Your task to perform on an android device: uninstall "Messenger Lite" Image 0: 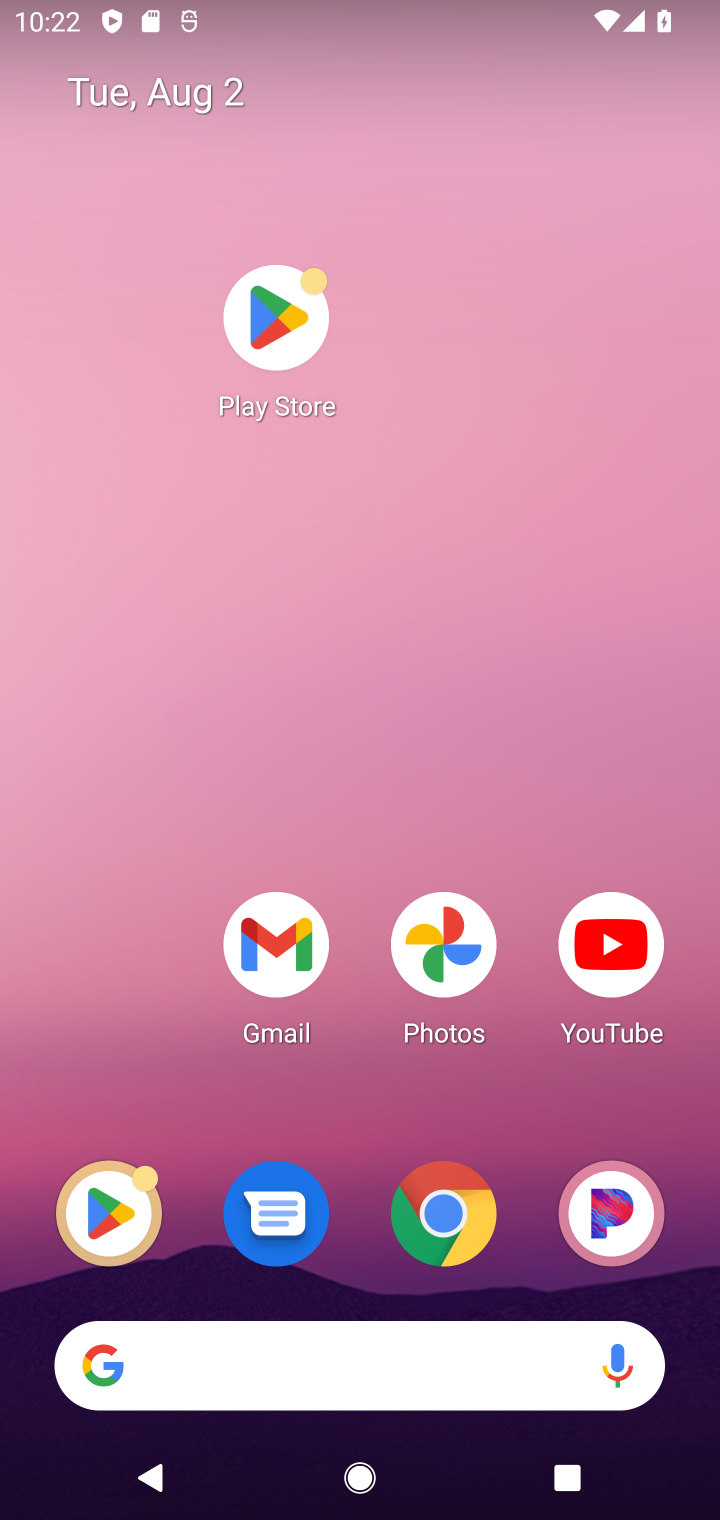
Step 0: click (303, 300)
Your task to perform on an android device: uninstall "Messenger Lite" Image 1: 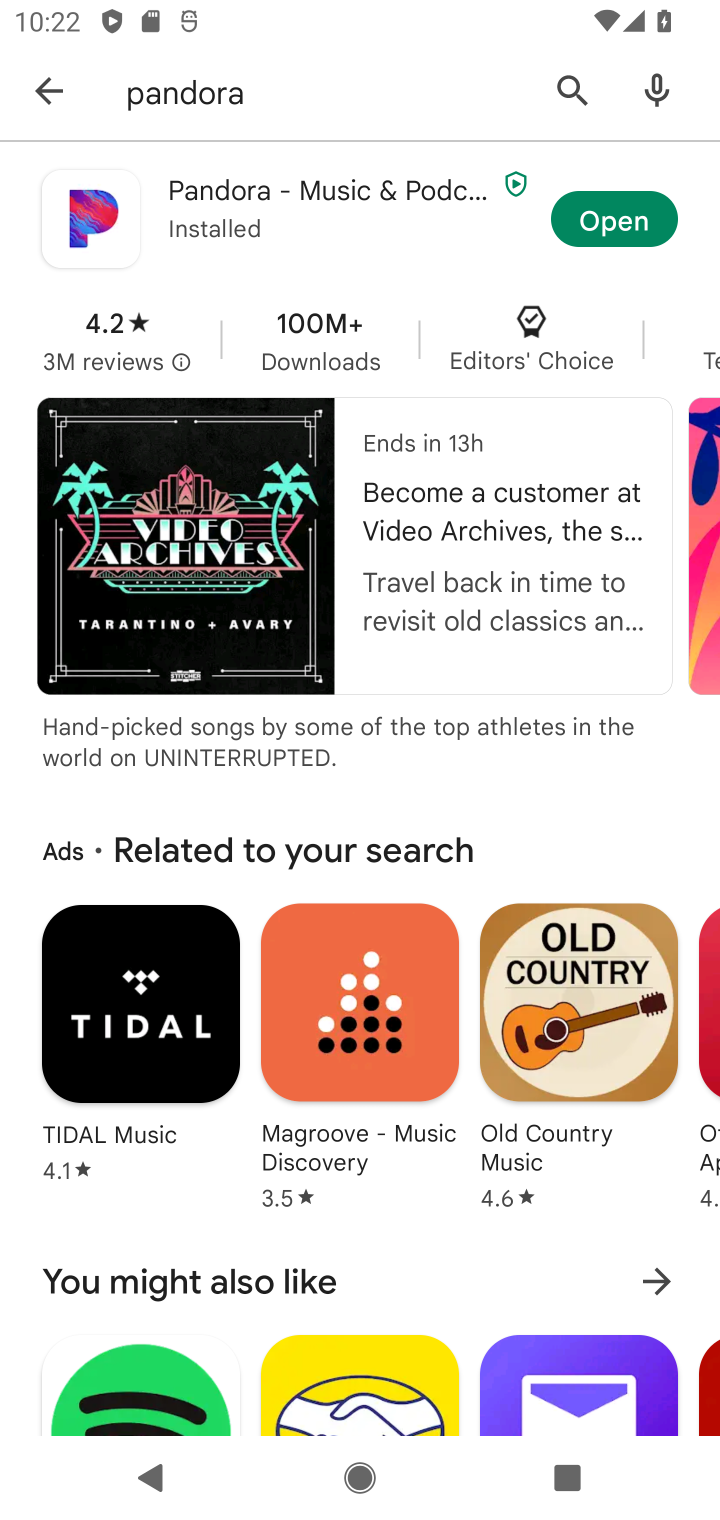
Step 1: click (567, 86)
Your task to perform on an android device: uninstall "Messenger Lite" Image 2: 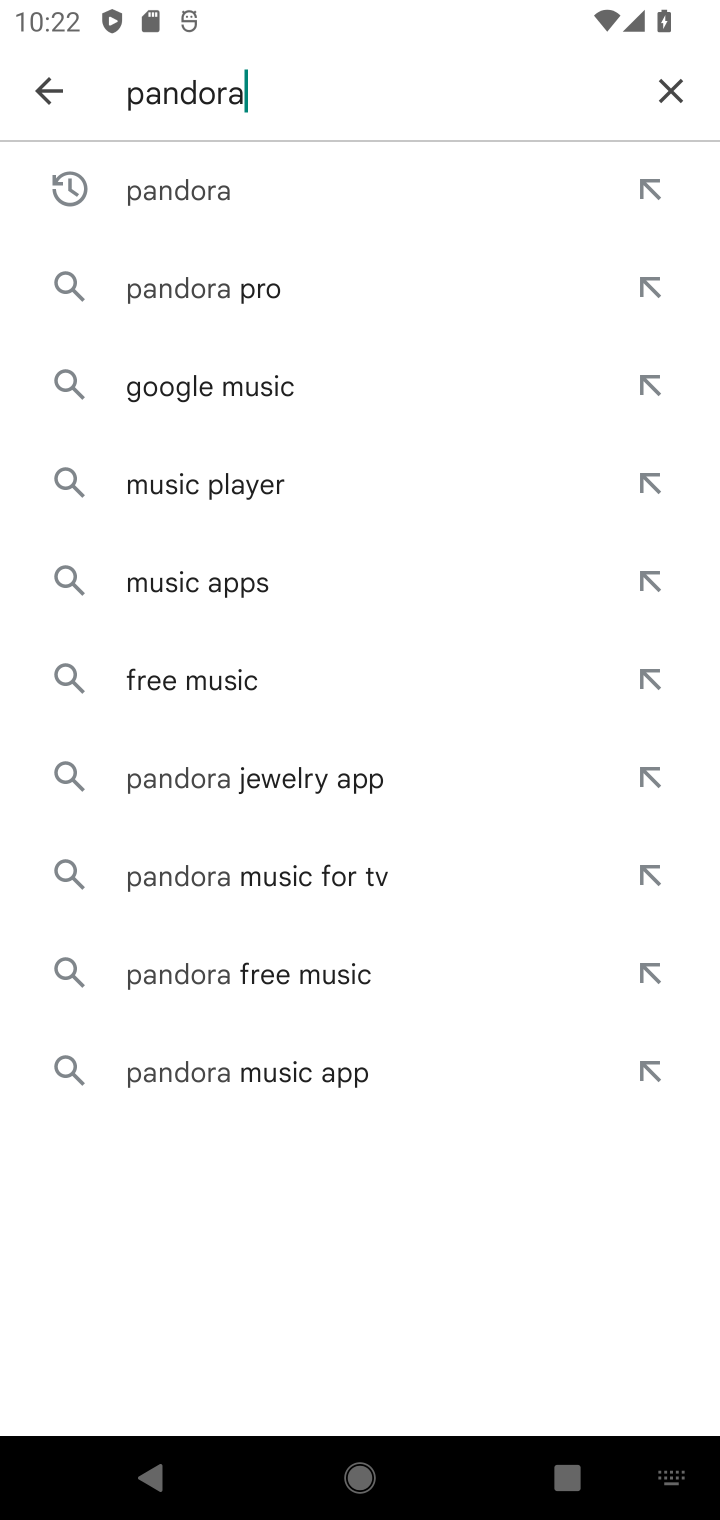
Step 2: click (666, 72)
Your task to perform on an android device: uninstall "Messenger Lite" Image 3: 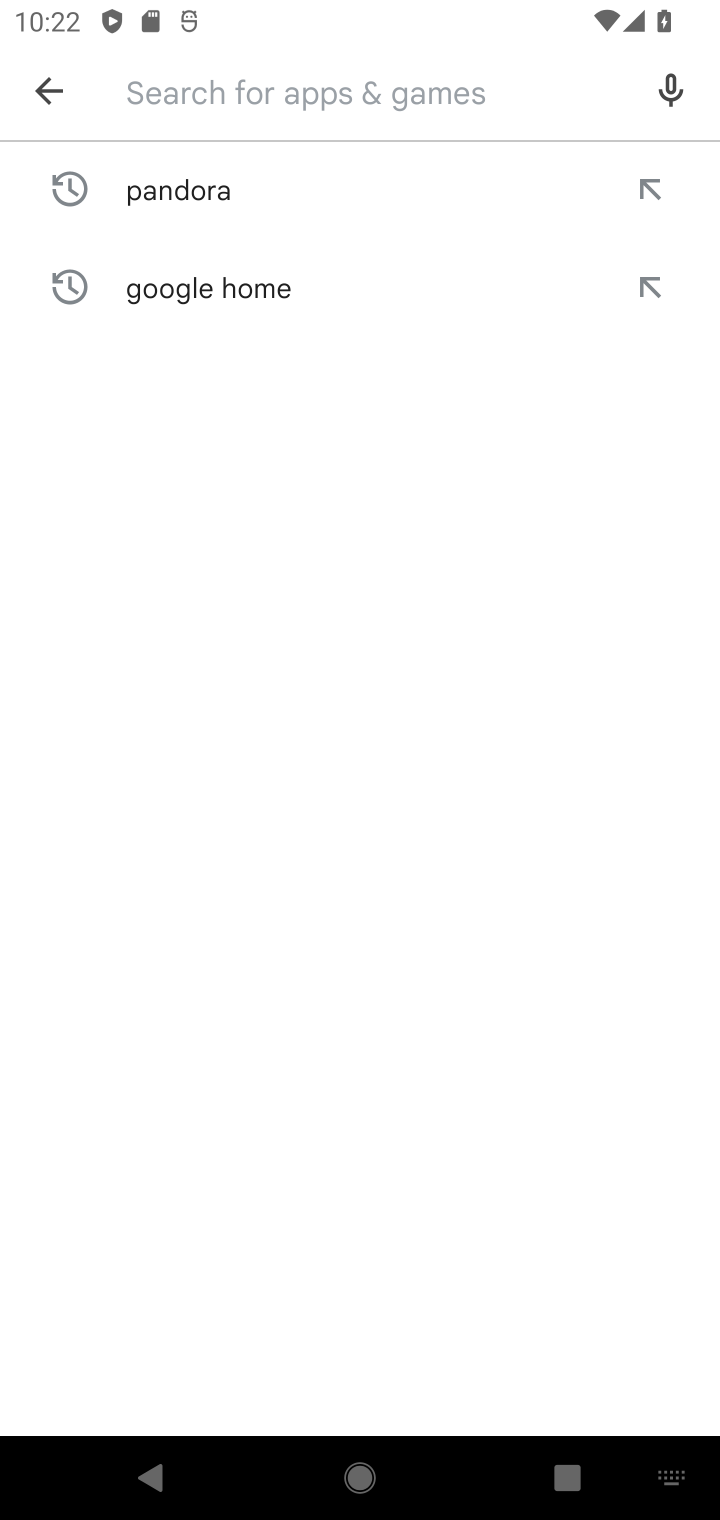
Step 3: type "messenger lite"
Your task to perform on an android device: uninstall "Messenger Lite" Image 4: 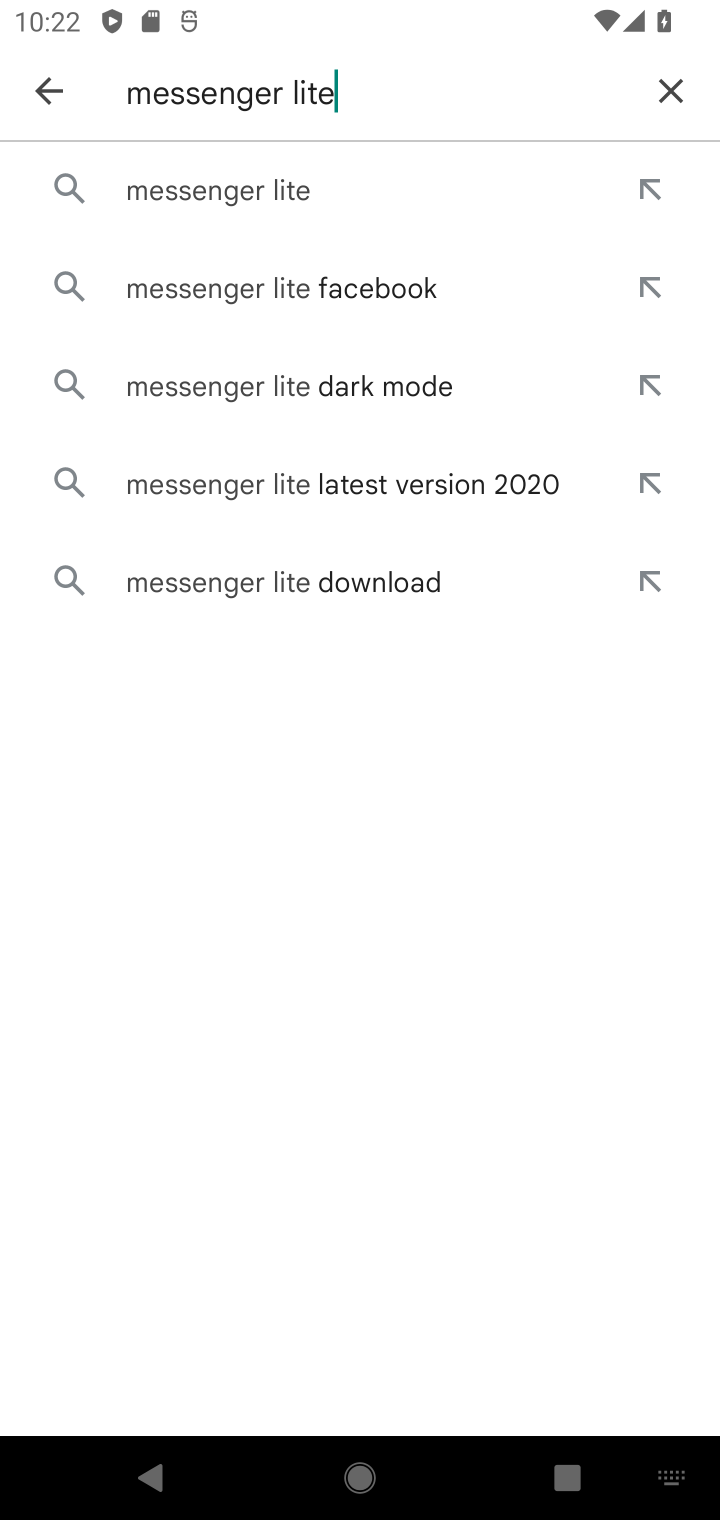
Step 4: click (415, 164)
Your task to perform on an android device: uninstall "Messenger Lite" Image 5: 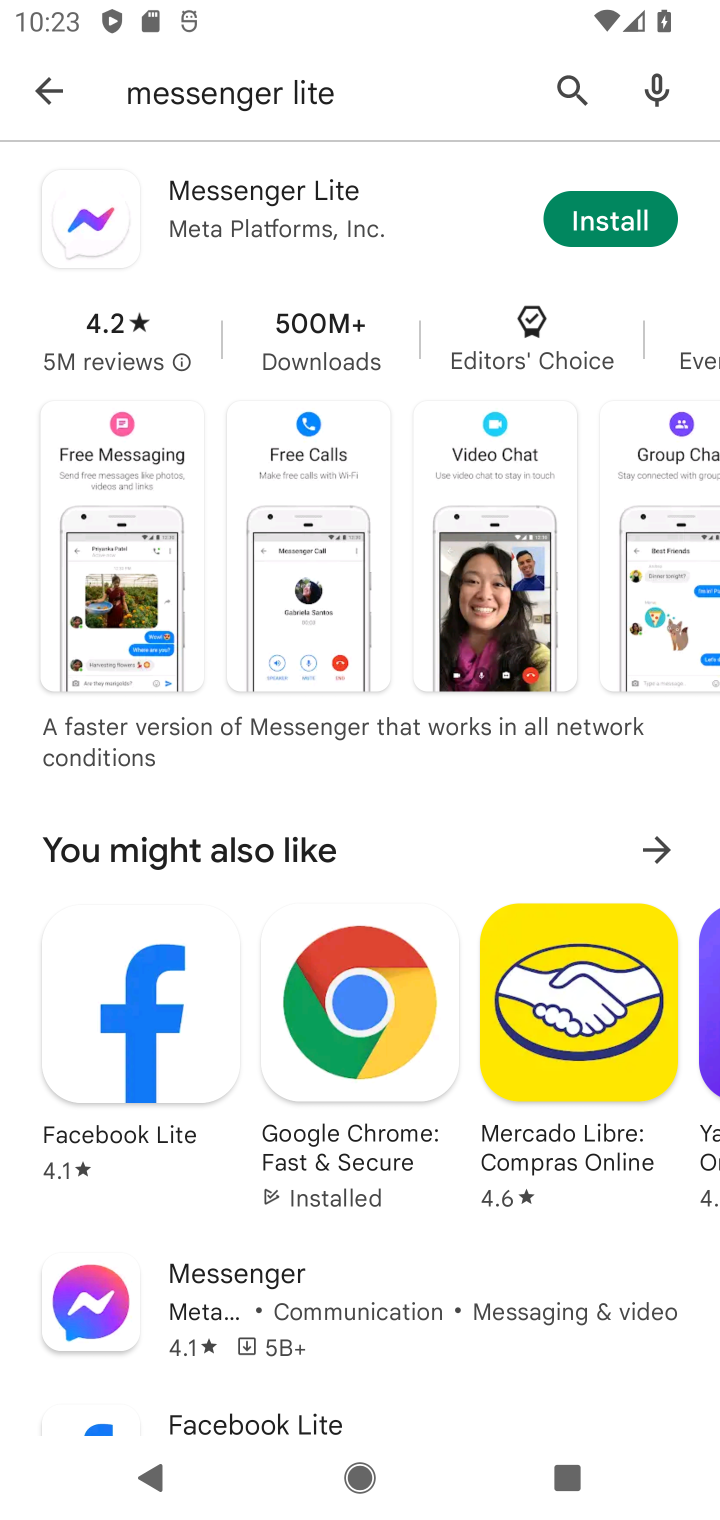
Step 5: task complete